Your task to perform on an android device: delete a single message in the gmail app Image 0: 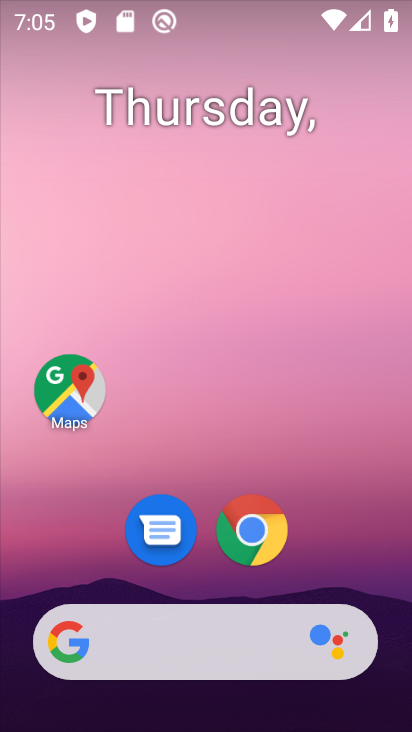
Step 0: drag from (268, 687) to (332, 208)
Your task to perform on an android device: delete a single message in the gmail app Image 1: 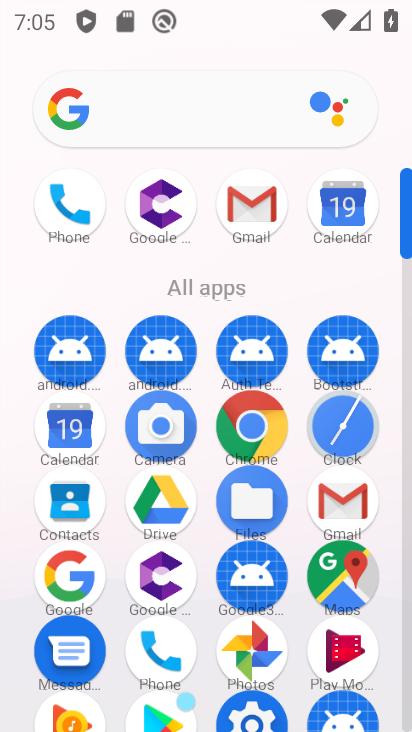
Step 1: click (225, 219)
Your task to perform on an android device: delete a single message in the gmail app Image 2: 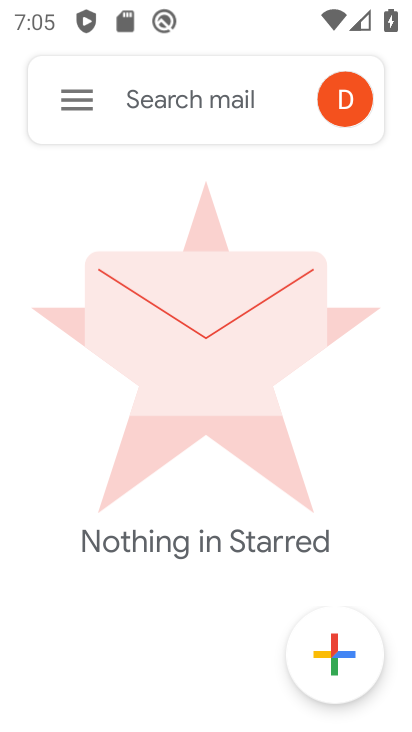
Step 2: click (78, 77)
Your task to perform on an android device: delete a single message in the gmail app Image 3: 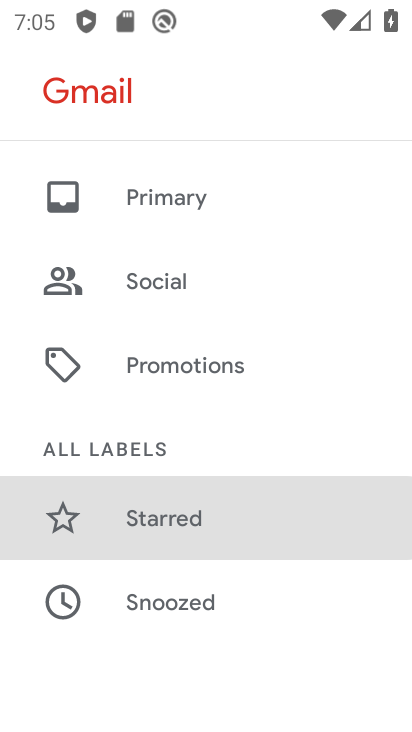
Step 3: drag from (170, 513) to (198, 287)
Your task to perform on an android device: delete a single message in the gmail app Image 4: 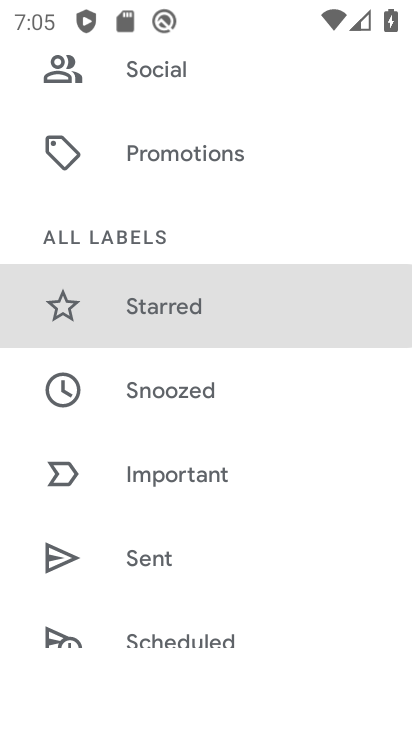
Step 4: drag from (178, 493) to (196, 283)
Your task to perform on an android device: delete a single message in the gmail app Image 5: 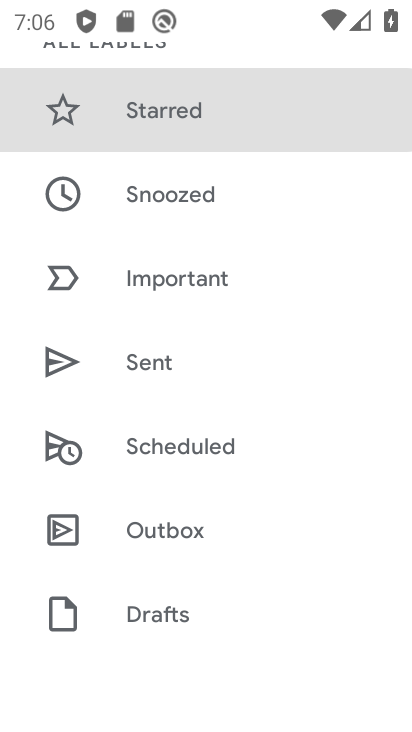
Step 5: drag from (180, 514) to (209, 303)
Your task to perform on an android device: delete a single message in the gmail app Image 6: 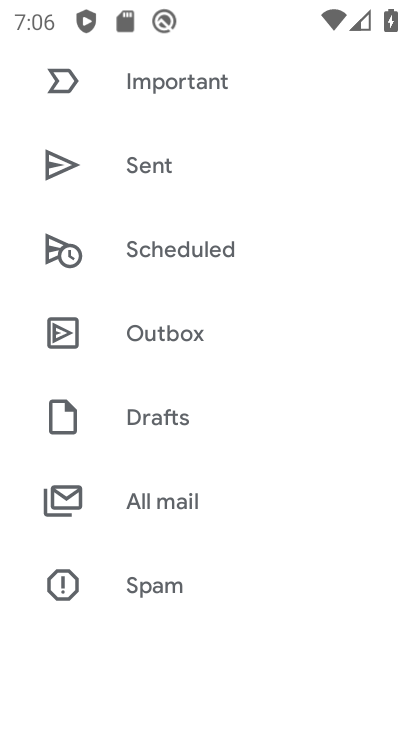
Step 6: click (185, 511)
Your task to perform on an android device: delete a single message in the gmail app Image 7: 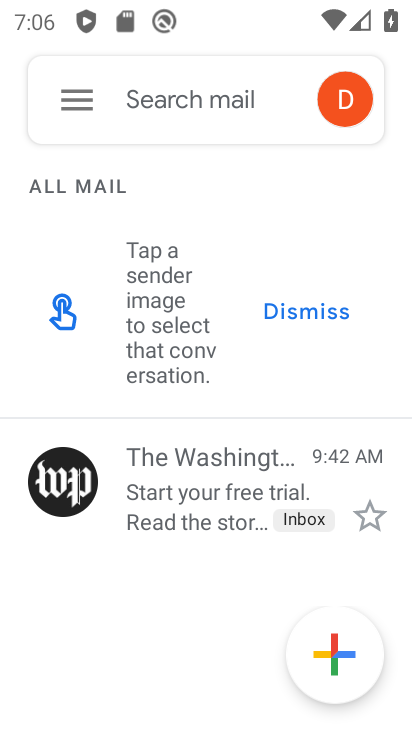
Step 7: click (203, 488)
Your task to perform on an android device: delete a single message in the gmail app Image 8: 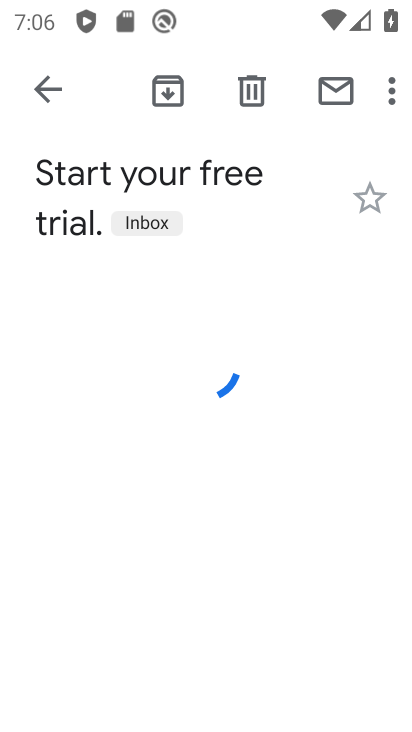
Step 8: click (249, 85)
Your task to perform on an android device: delete a single message in the gmail app Image 9: 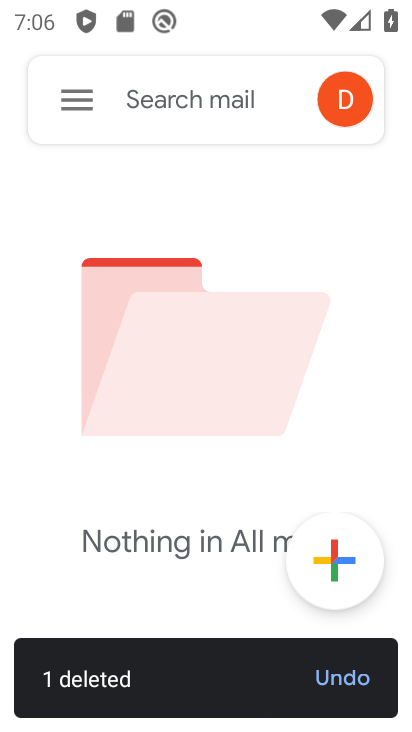
Step 9: task complete